Your task to perform on an android device: Go to internet settings Image 0: 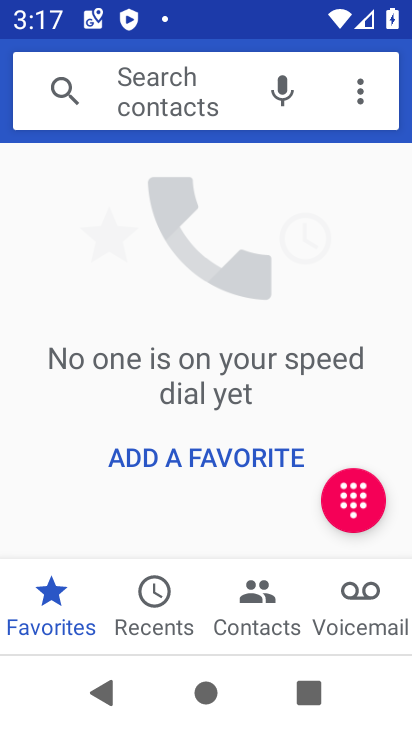
Step 0: press home button
Your task to perform on an android device: Go to internet settings Image 1: 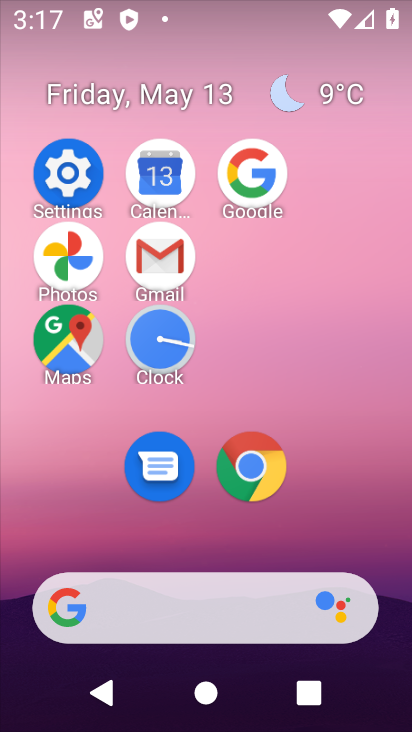
Step 1: click (86, 197)
Your task to perform on an android device: Go to internet settings Image 2: 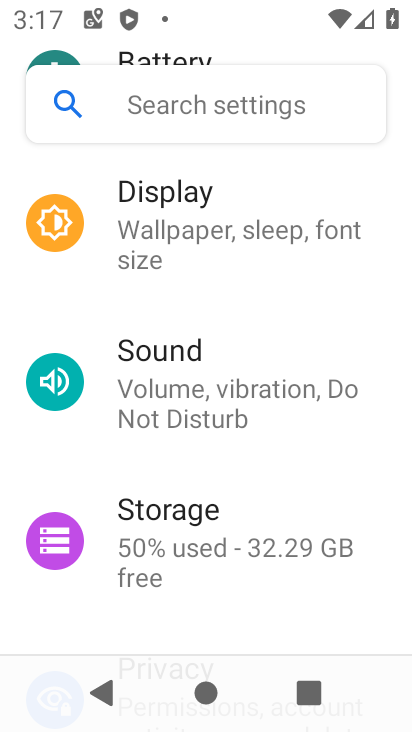
Step 2: drag from (306, 228) to (334, 627)
Your task to perform on an android device: Go to internet settings Image 3: 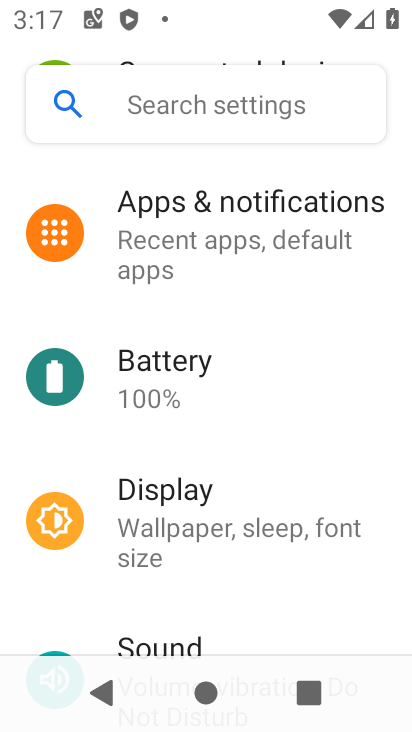
Step 3: drag from (299, 281) to (295, 651)
Your task to perform on an android device: Go to internet settings Image 4: 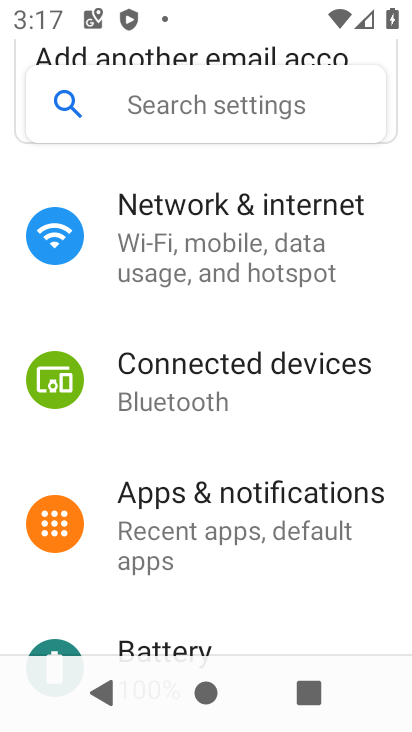
Step 4: click (256, 269)
Your task to perform on an android device: Go to internet settings Image 5: 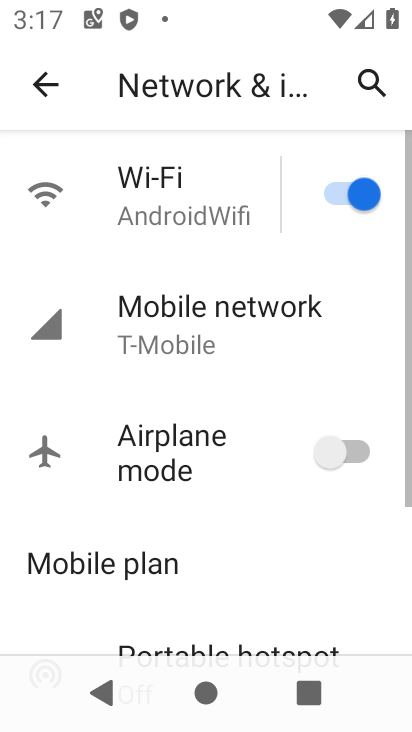
Step 5: click (207, 334)
Your task to perform on an android device: Go to internet settings Image 6: 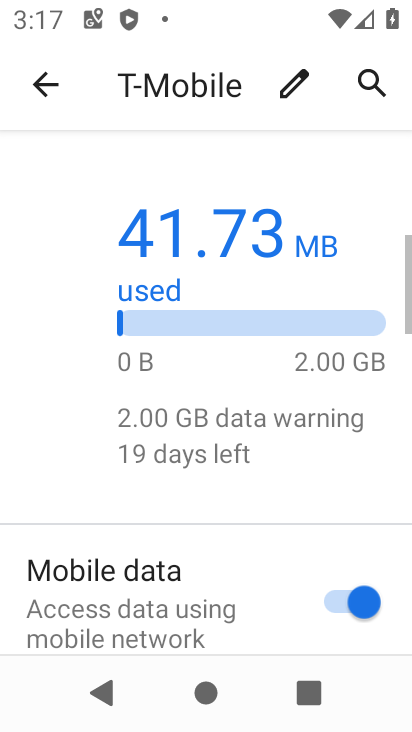
Step 6: task complete